Your task to perform on an android device: Is it going to rain this weekend? Image 0: 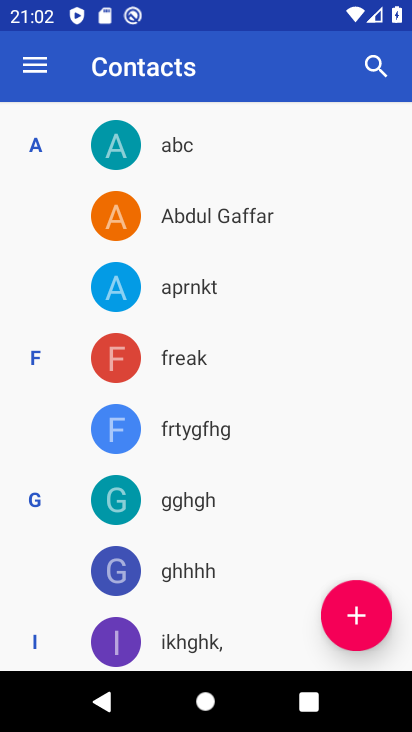
Step 0: press home button
Your task to perform on an android device: Is it going to rain this weekend? Image 1: 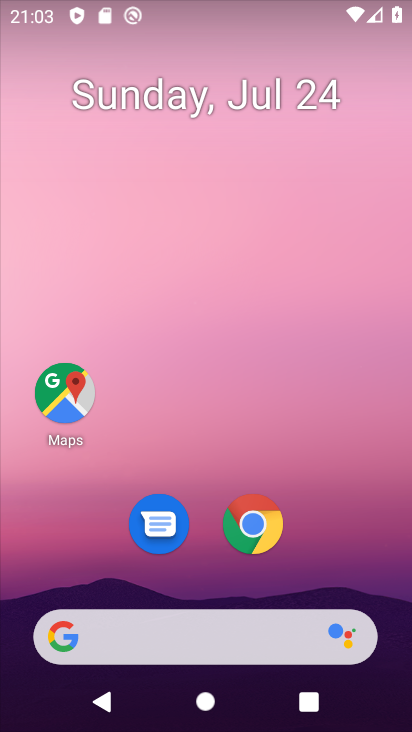
Step 1: click (149, 632)
Your task to perform on an android device: Is it going to rain this weekend? Image 2: 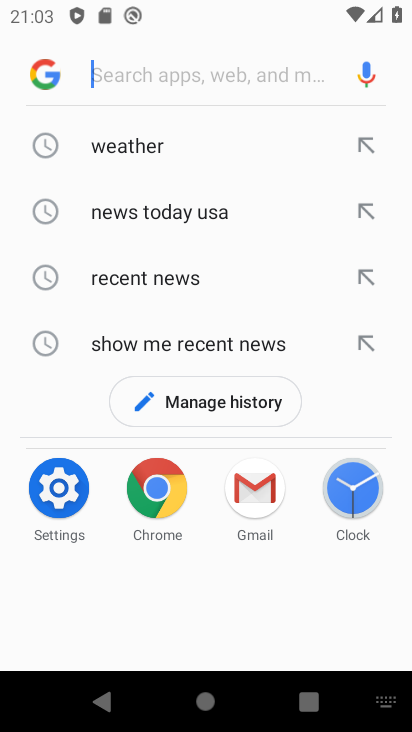
Step 2: click (145, 146)
Your task to perform on an android device: Is it going to rain this weekend? Image 3: 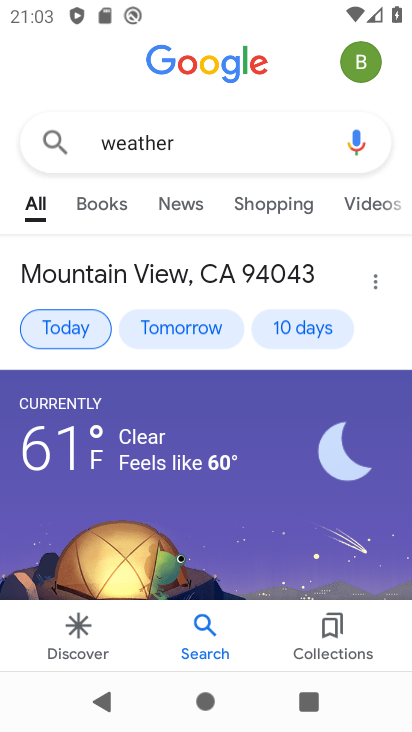
Step 3: click (304, 334)
Your task to perform on an android device: Is it going to rain this weekend? Image 4: 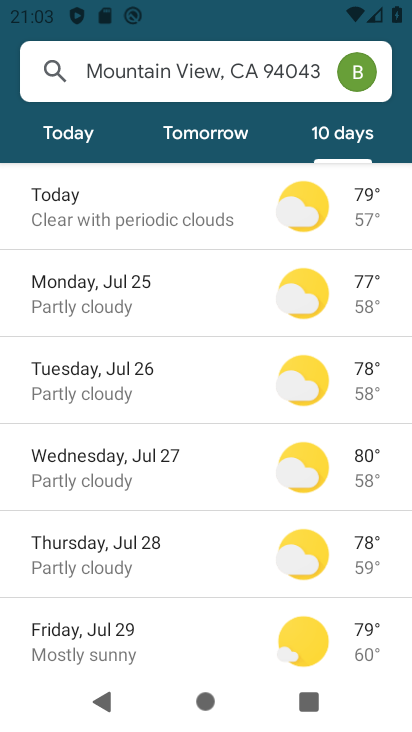
Step 4: drag from (107, 575) to (253, 176)
Your task to perform on an android device: Is it going to rain this weekend? Image 5: 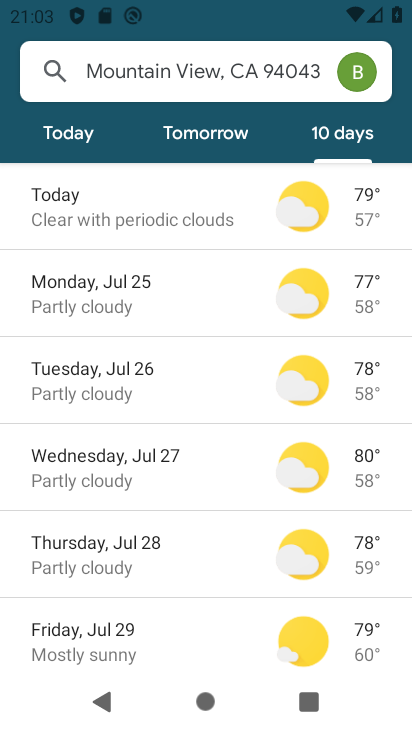
Step 5: drag from (241, 582) to (310, 202)
Your task to perform on an android device: Is it going to rain this weekend? Image 6: 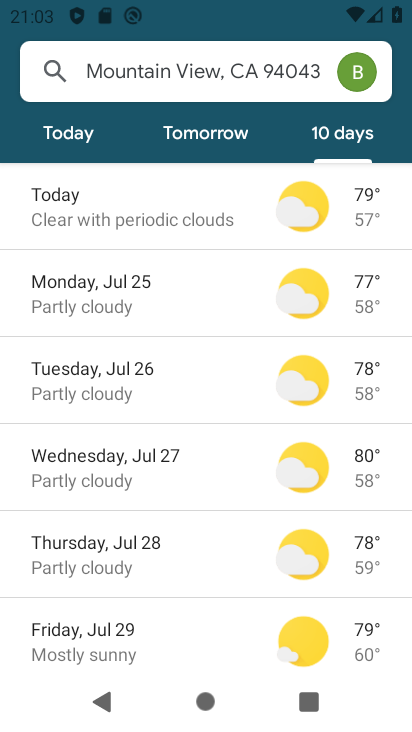
Step 6: drag from (104, 399) to (150, 103)
Your task to perform on an android device: Is it going to rain this weekend? Image 7: 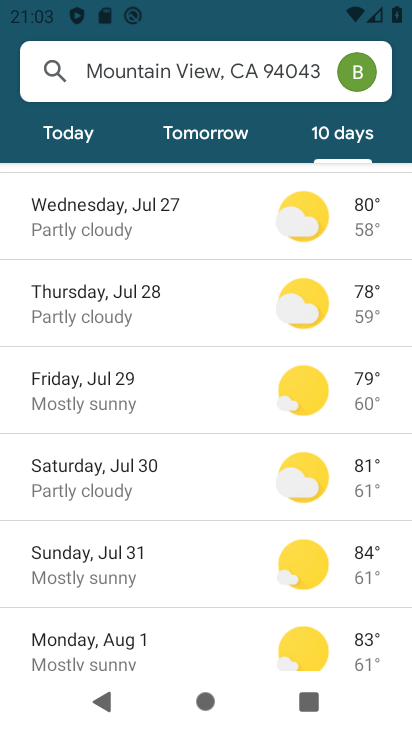
Step 7: click (121, 482)
Your task to perform on an android device: Is it going to rain this weekend? Image 8: 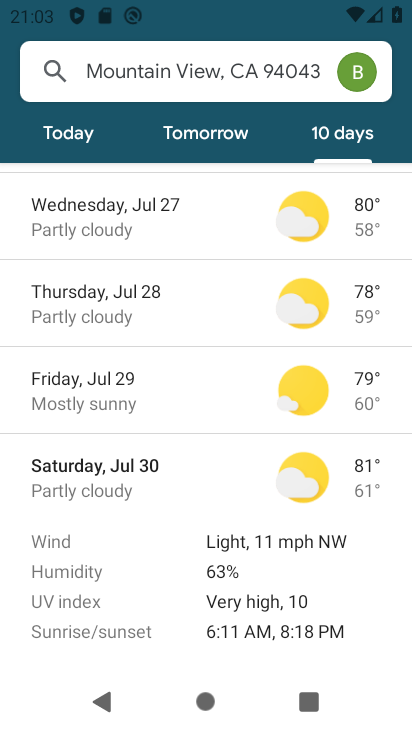
Step 8: task complete